Your task to perform on an android device: What time is it in Beijing? Image 0: 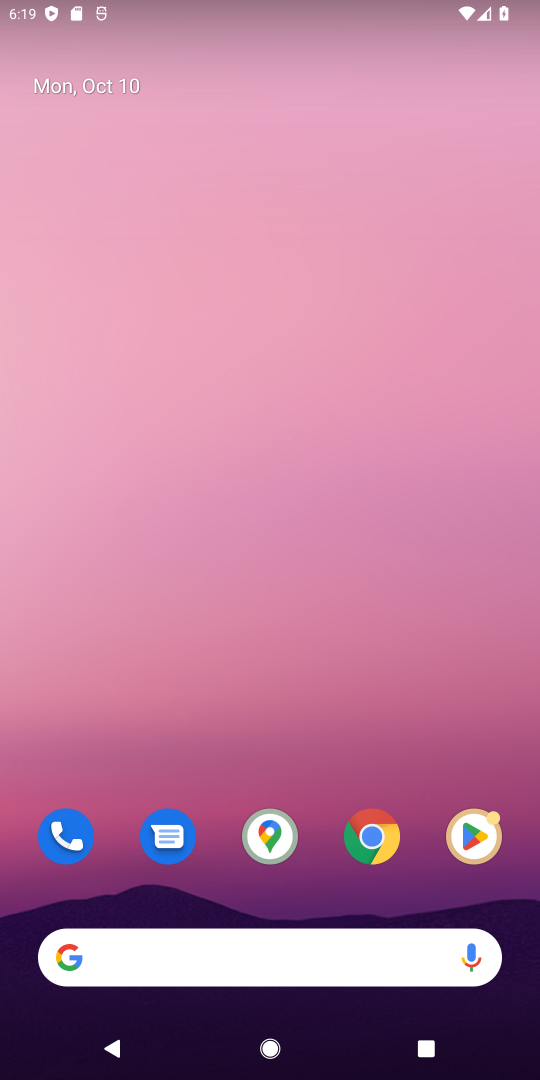
Step 0: click (377, 834)
Your task to perform on an android device: What time is it in Beijing? Image 1: 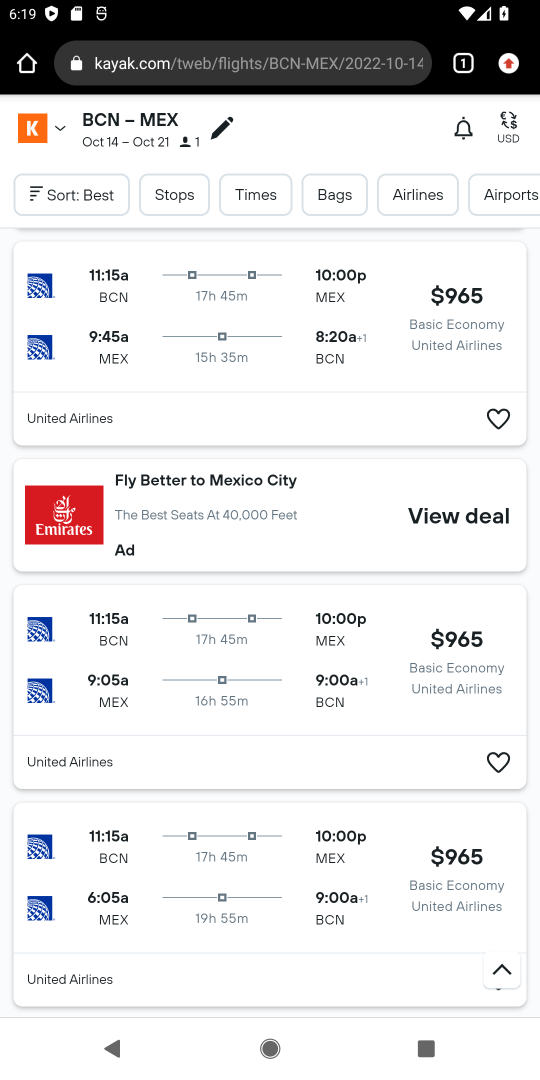
Step 1: click (181, 40)
Your task to perform on an android device: What time is it in Beijing? Image 2: 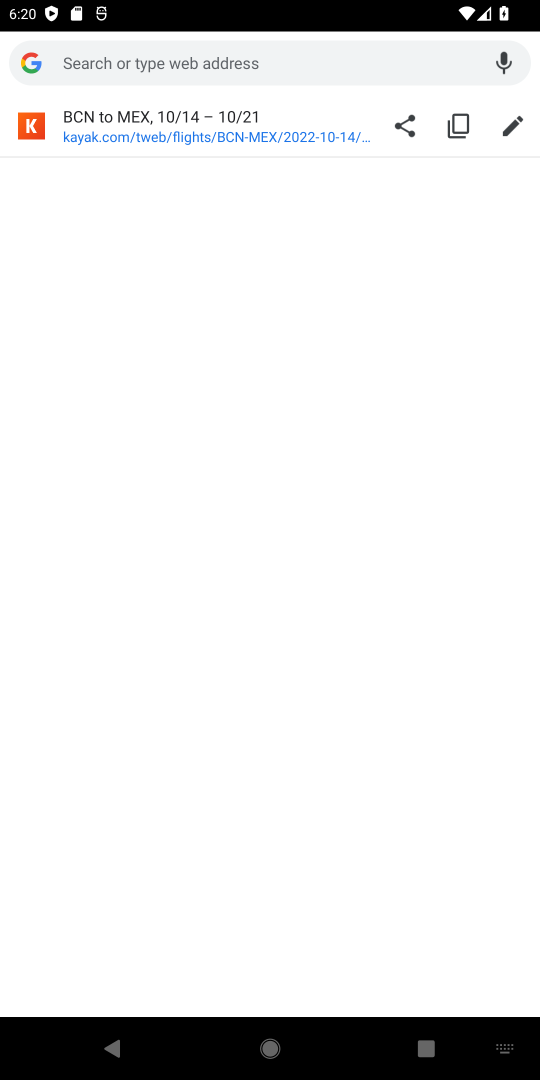
Step 2: type "What time is it in Beijing?"
Your task to perform on an android device: What time is it in Beijing? Image 3: 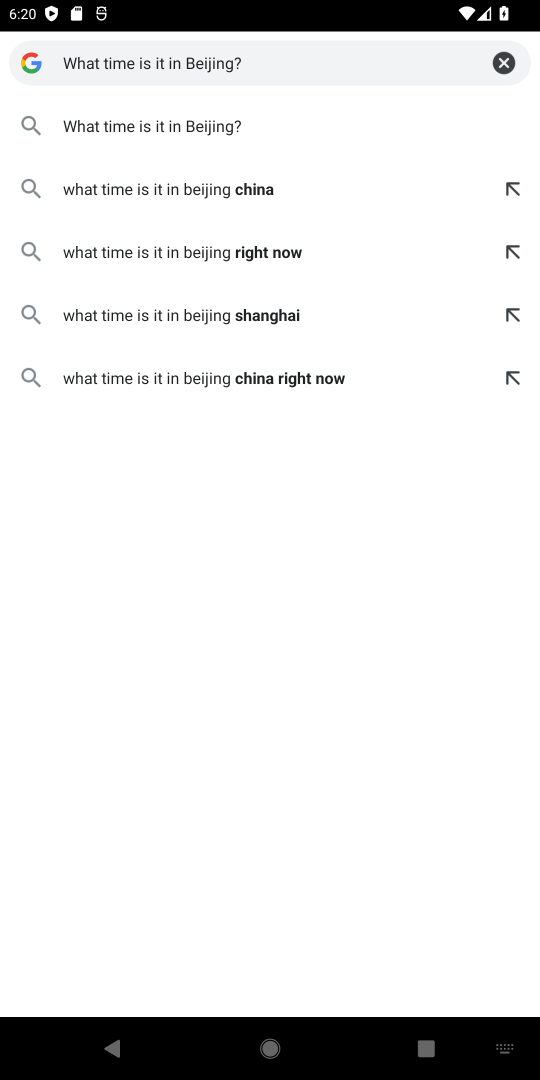
Step 3: click (149, 126)
Your task to perform on an android device: What time is it in Beijing? Image 4: 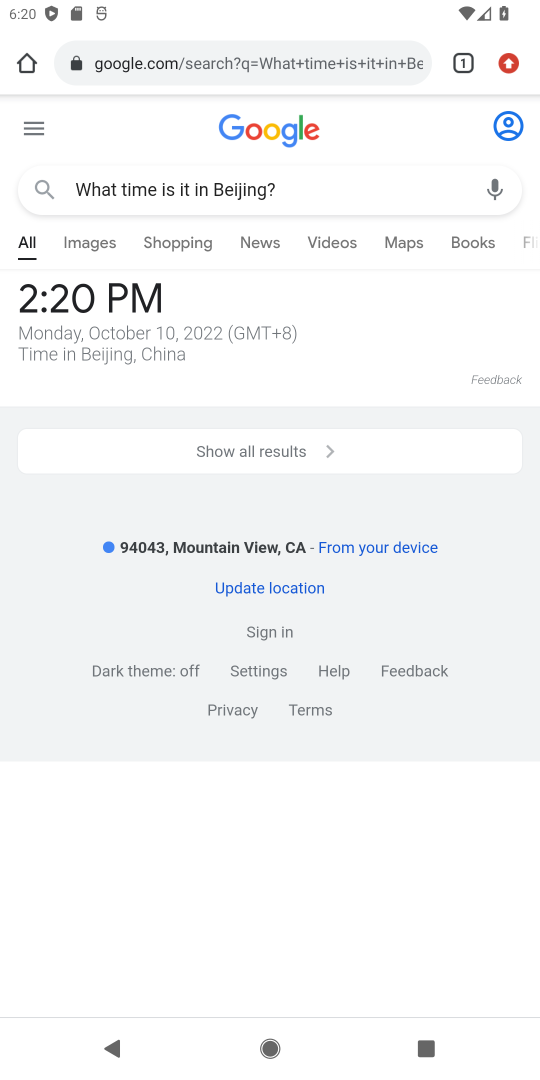
Step 4: task complete